Your task to perform on an android device: see sites visited before in the chrome app Image 0: 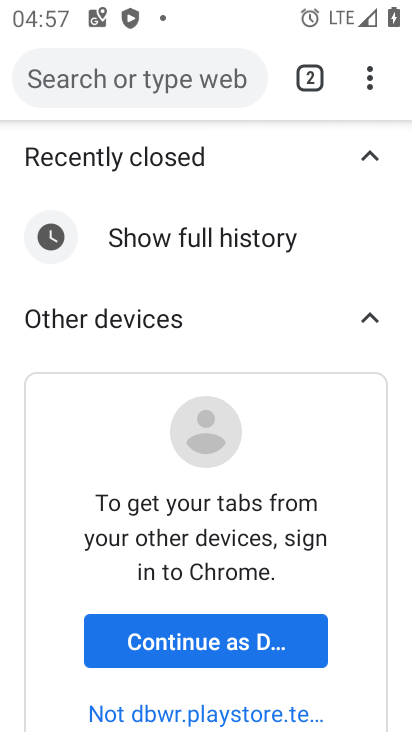
Step 0: press home button
Your task to perform on an android device: see sites visited before in the chrome app Image 1: 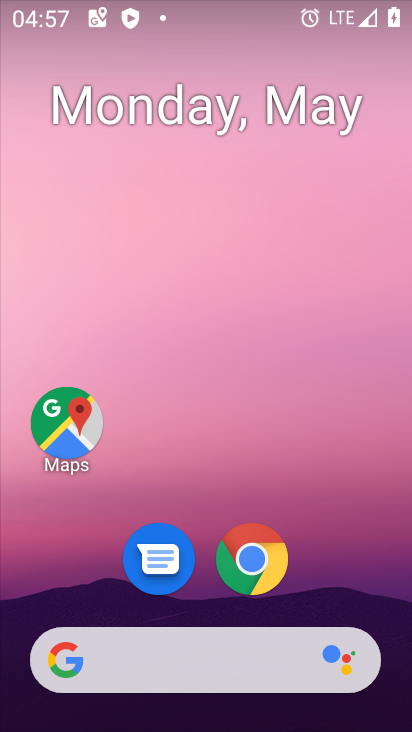
Step 1: drag from (236, 673) to (290, 48)
Your task to perform on an android device: see sites visited before in the chrome app Image 2: 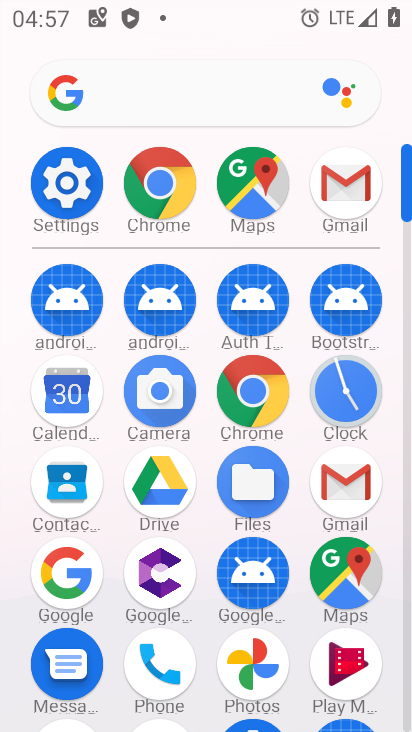
Step 2: click (238, 390)
Your task to perform on an android device: see sites visited before in the chrome app Image 3: 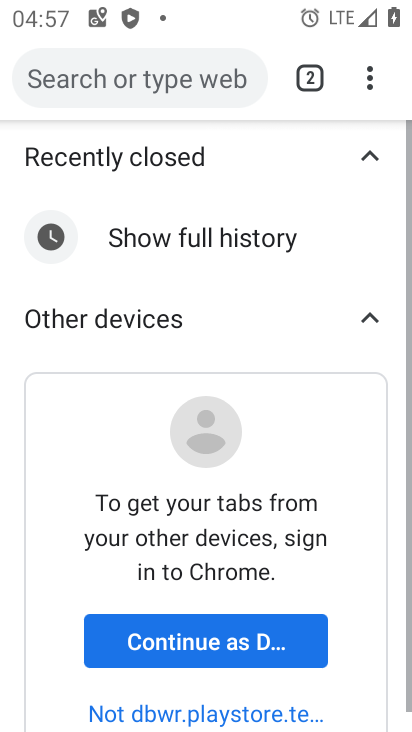
Step 3: drag from (372, 81) to (305, 320)
Your task to perform on an android device: see sites visited before in the chrome app Image 4: 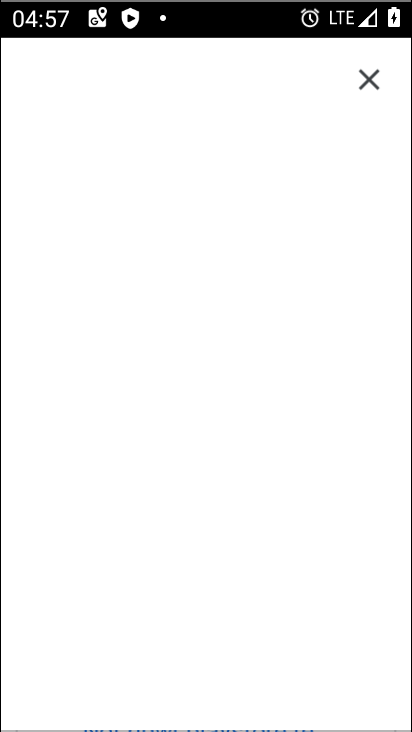
Step 4: click (188, 361)
Your task to perform on an android device: see sites visited before in the chrome app Image 5: 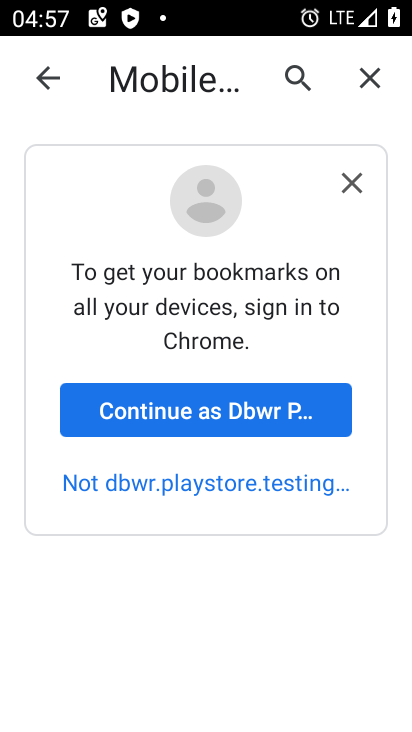
Step 5: task complete